Your task to perform on an android device: Empty the shopping cart on walmart. Add razer blade to the cart on walmart, then select checkout. Image 0: 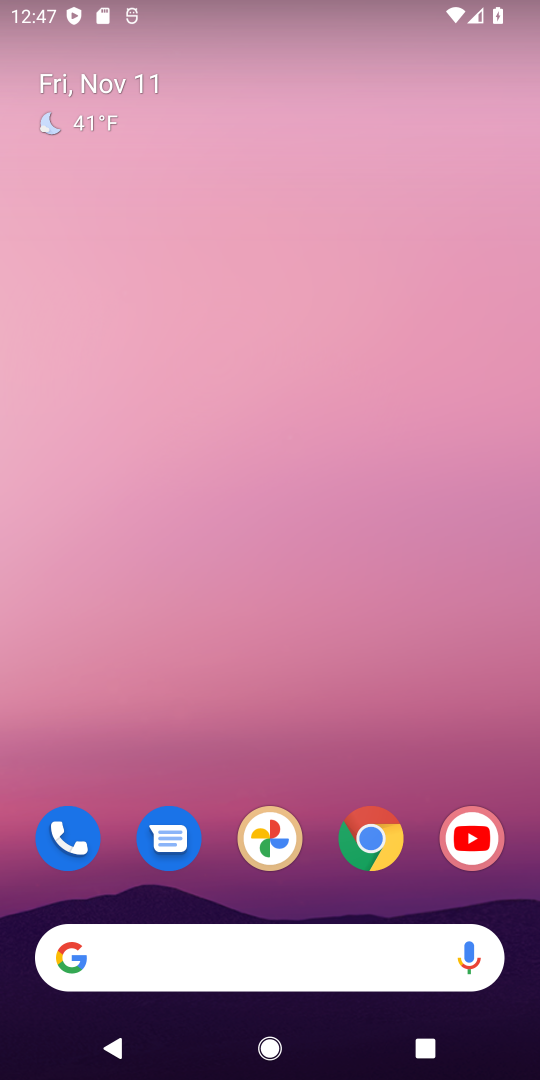
Step 0: click (350, 833)
Your task to perform on an android device: Empty the shopping cart on walmart. Add razer blade to the cart on walmart, then select checkout. Image 1: 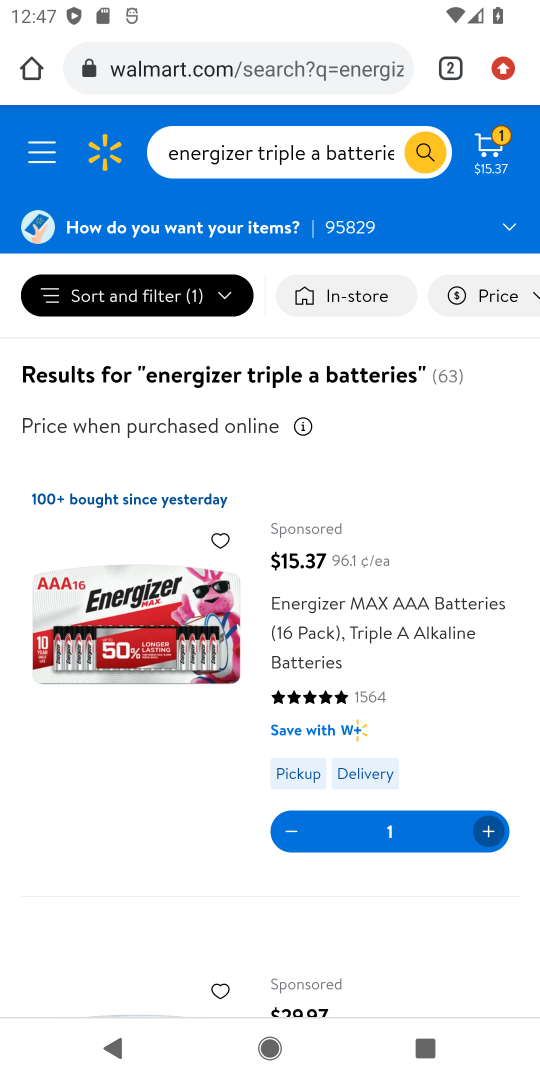
Step 1: click (507, 140)
Your task to perform on an android device: Empty the shopping cart on walmart. Add razer blade to the cart on walmart, then select checkout. Image 2: 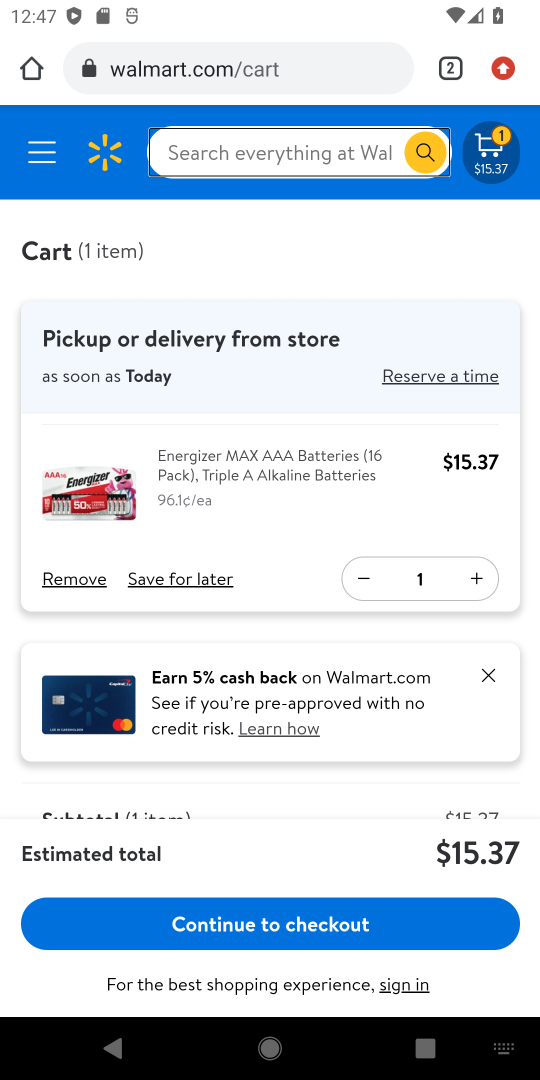
Step 2: click (82, 580)
Your task to perform on an android device: Empty the shopping cart on walmart. Add razer blade to the cart on walmart, then select checkout. Image 3: 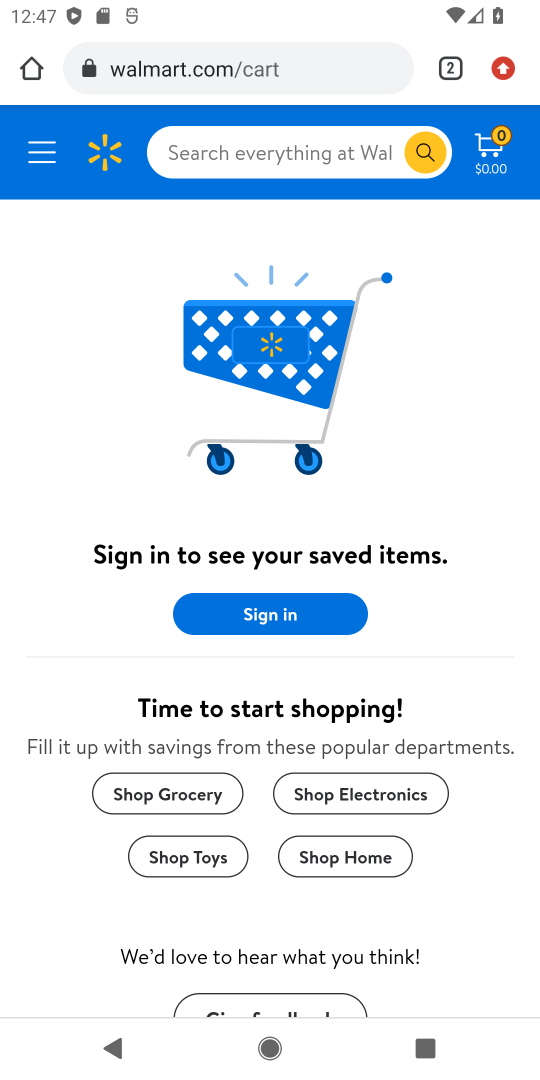
Step 3: click (336, 153)
Your task to perform on an android device: Empty the shopping cart on walmart. Add razer blade to the cart on walmart, then select checkout. Image 4: 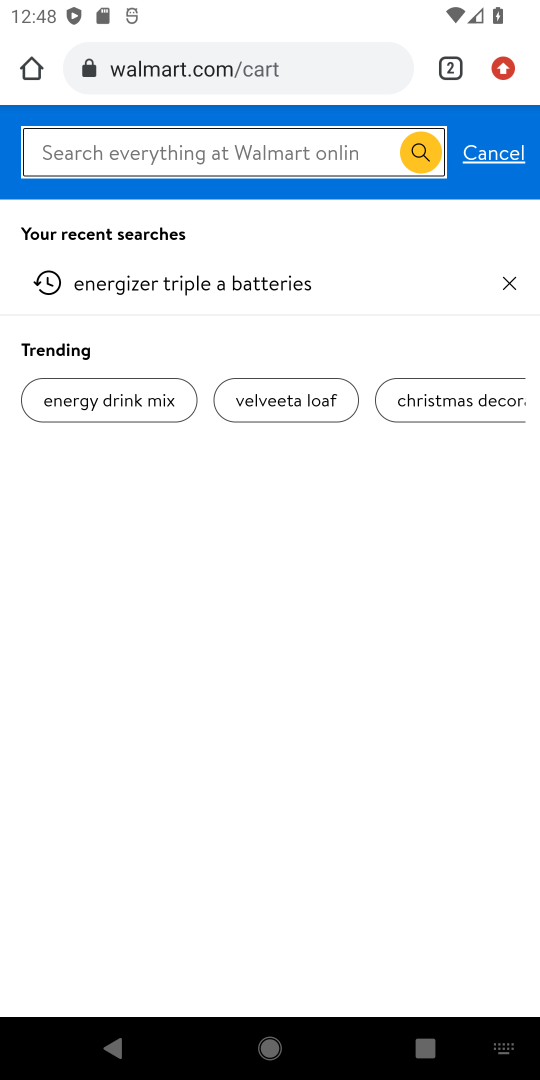
Step 4: type "razer blade"
Your task to perform on an android device: Empty the shopping cart on walmart. Add razer blade to the cart on walmart, then select checkout. Image 5: 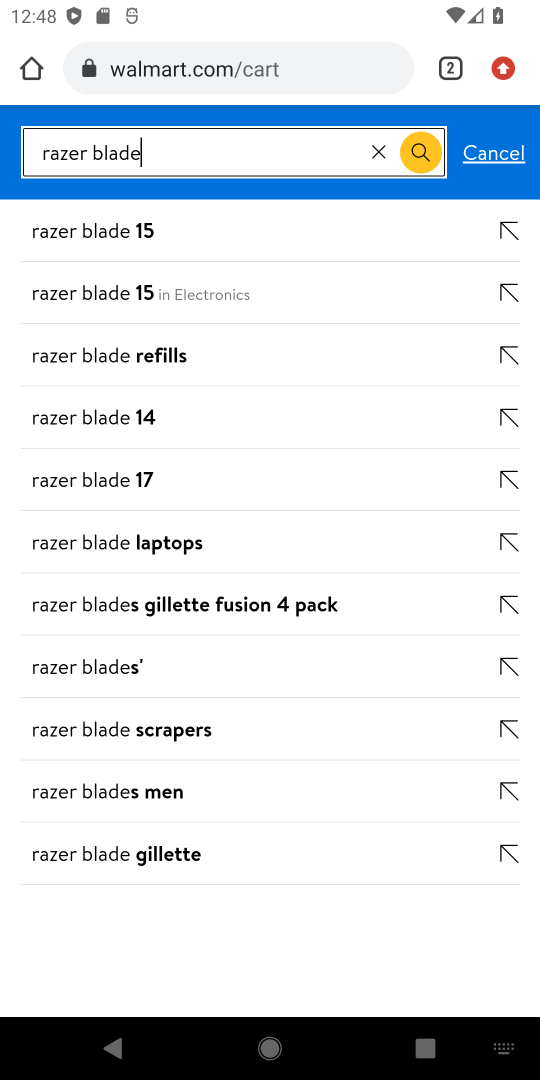
Step 5: click (130, 291)
Your task to perform on an android device: Empty the shopping cart on walmart. Add razer blade to the cart on walmart, then select checkout. Image 6: 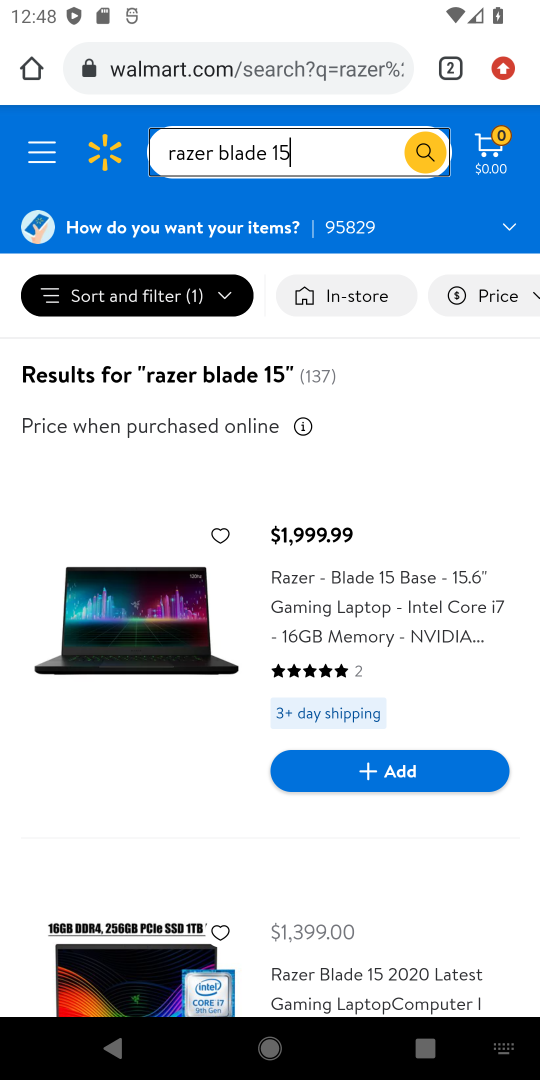
Step 6: click (373, 769)
Your task to perform on an android device: Empty the shopping cart on walmart. Add razer blade to the cart on walmart, then select checkout. Image 7: 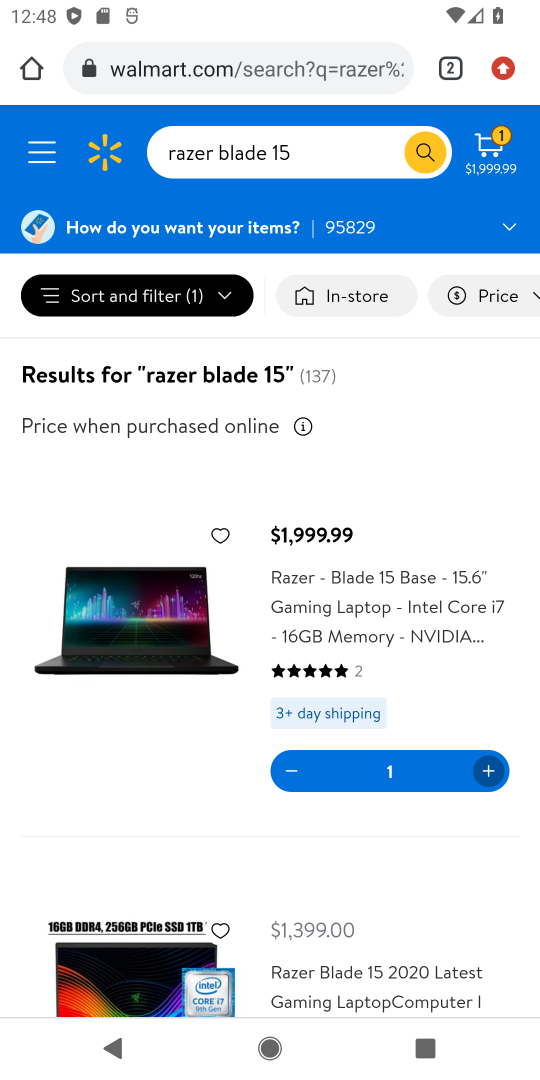
Step 7: click (501, 153)
Your task to perform on an android device: Empty the shopping cart on walmart. Add razer blade to the cart on walmart, then select checkout. Image 8: 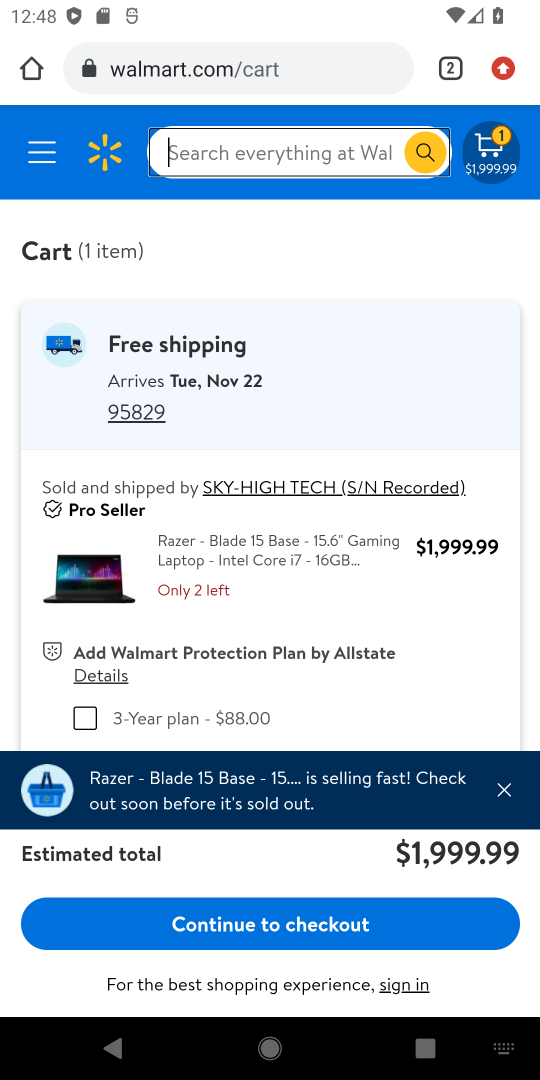
Step 8: click (333, 927)
Your task to perform on an android device: Empty the shopping cart on walmart. Add razer blade to the cart on walmart, then select checkout. Image 9: 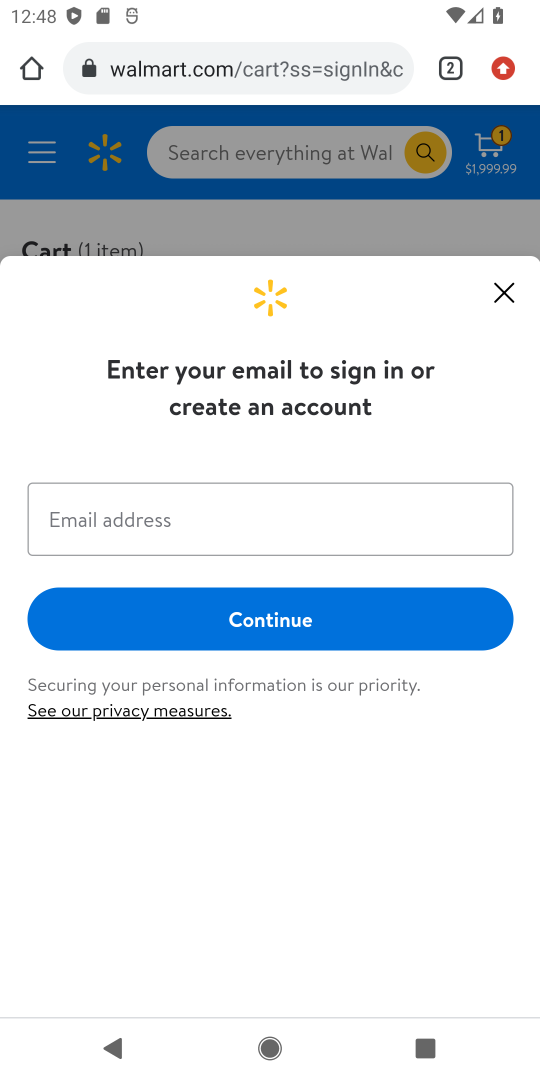
Step 9: task complete